Your task to perform on an android device: Go to sound settings Image 0: 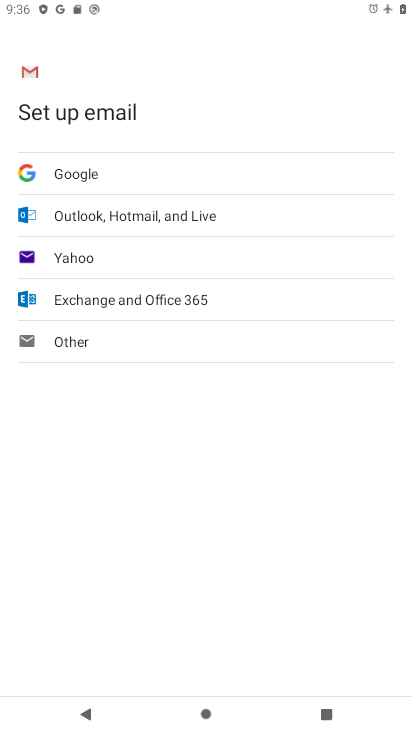
Step 0: press home button
Your task to perform on an android device: Go to sound settings Image 1: 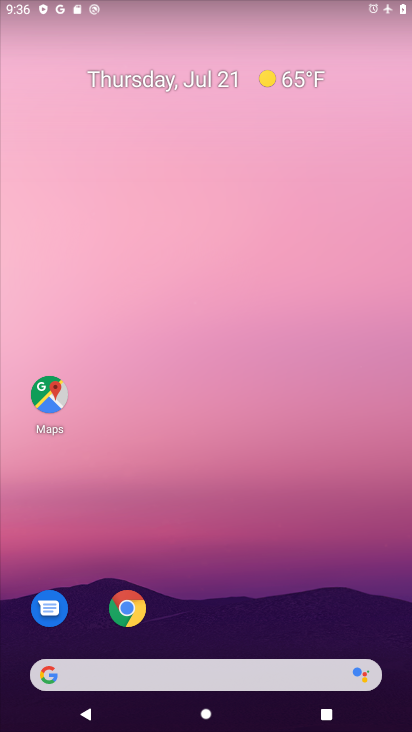
Step 1: drag from (223, 452) to (229, 207)
Your task to perform on an android device: Go to sound settings Image 2: 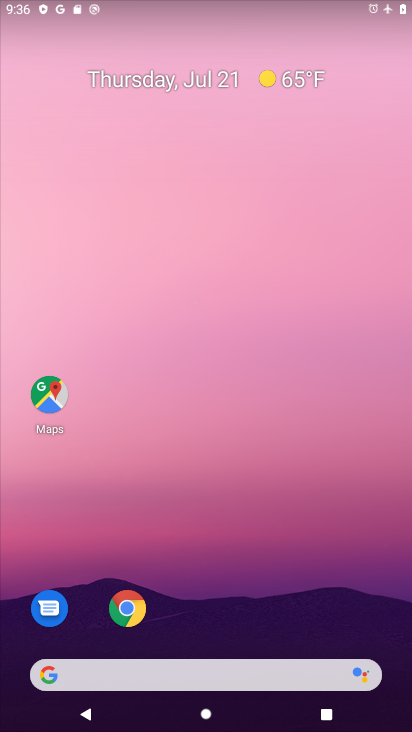
Step 2: drag from (245, 559) to (243, 190)
Your task to perform on an android device: Go to sound settings Image 3: 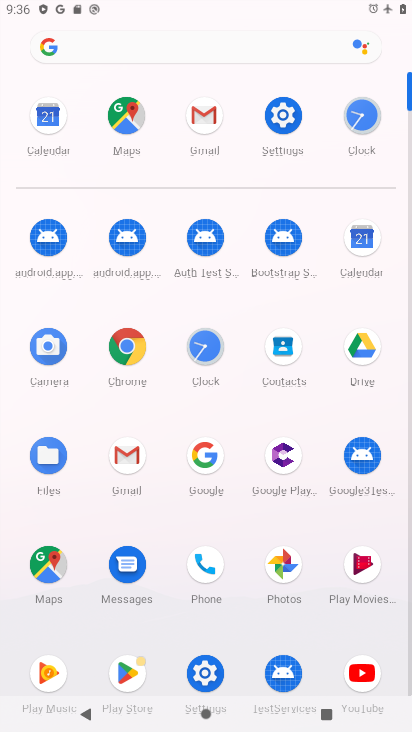
Step 3: click (282, 120)
Your task to perform on an android device: Go to sound settings Image 4: 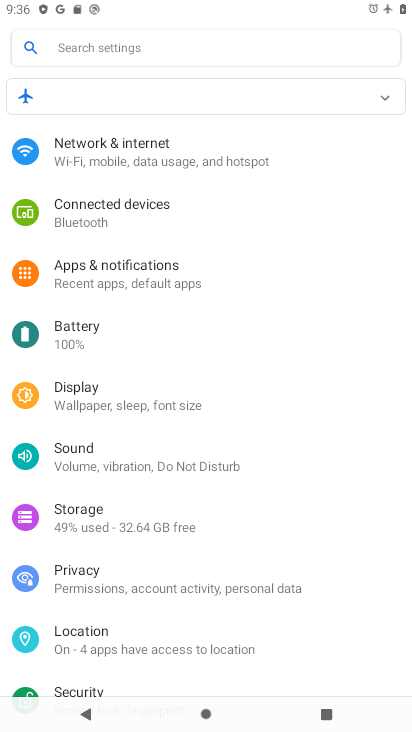
Step 4: click (83, 449)
Your task to perform on an android device: Go to sound settings Image 5: 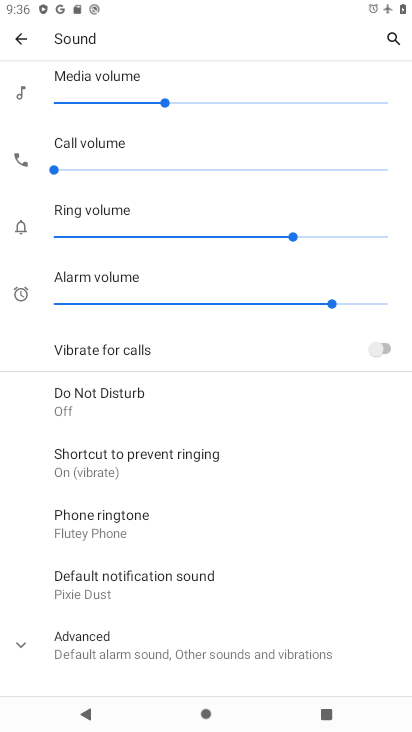
Step 5: task complete